Your task to perform on an android device: open a bookmark in the chrome app Image 0: 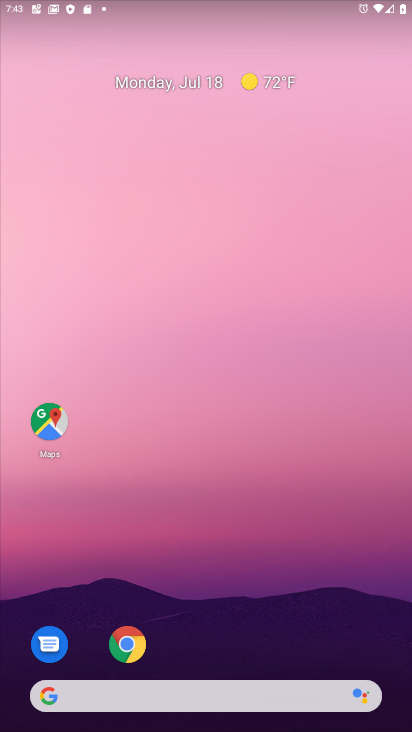
Step 0: drag from (388, 671) to (284, 25)
Your task to perform on an android device: open a bookmark in the chrome app Image 1: 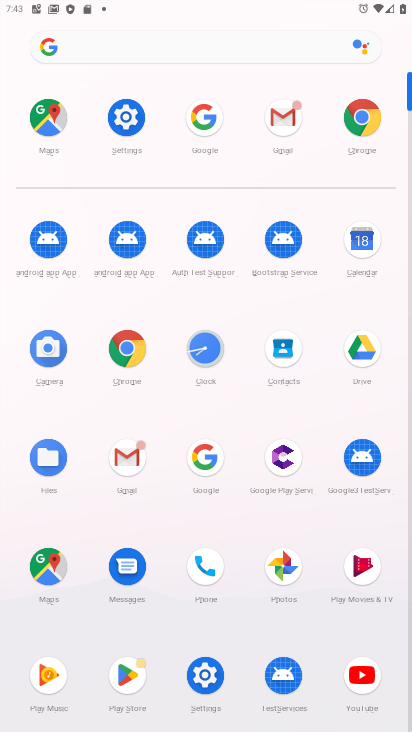
Step 1: click (142, 364)
Your task to perform on an android device: open a bookmark in the chrome app Image 2: 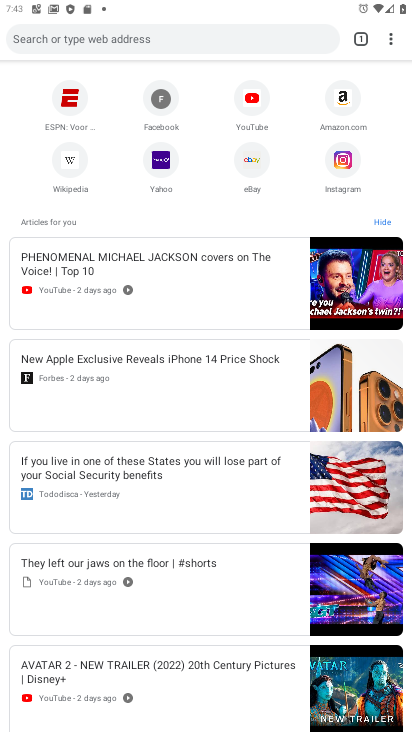
Step 2: click (389, 34)
Your task to perform on an android device: open a bookmark in the chrome app Image 3: 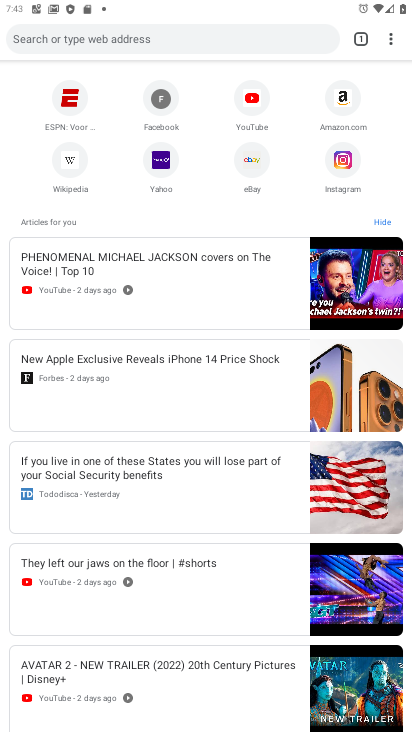
Step 3: click (389, 34)
Your task to perform on an android device: open a bookmark in the chrome app Image 4: 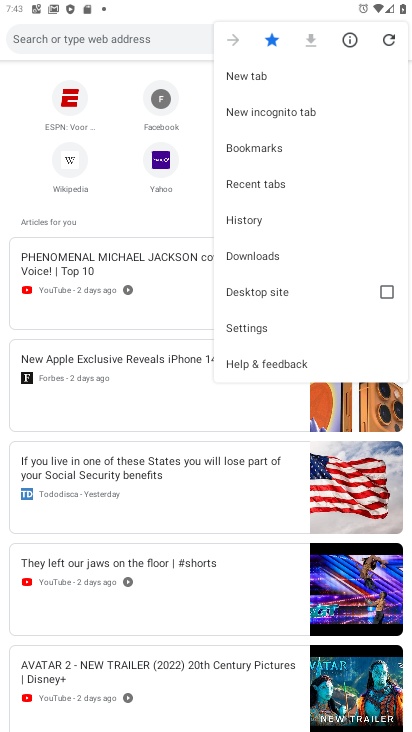
Step 4: click (247, 146)
Your task to perform on an android device: open a bookmark in the chrome app Image 5: 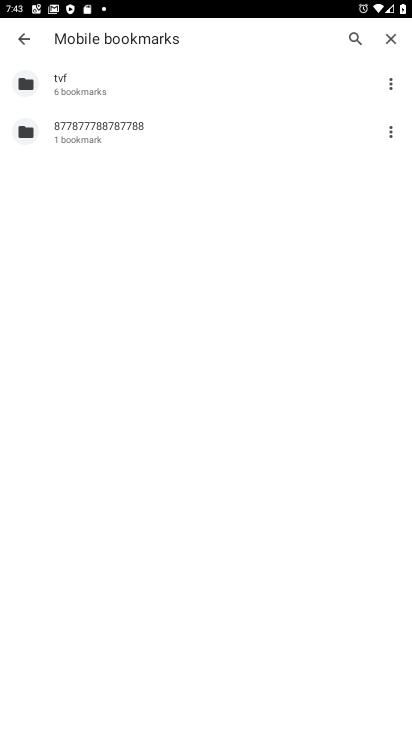
Step 5: task complete